Your task to perform on an android device: What's the weather going to be tomorrow? Image 0: 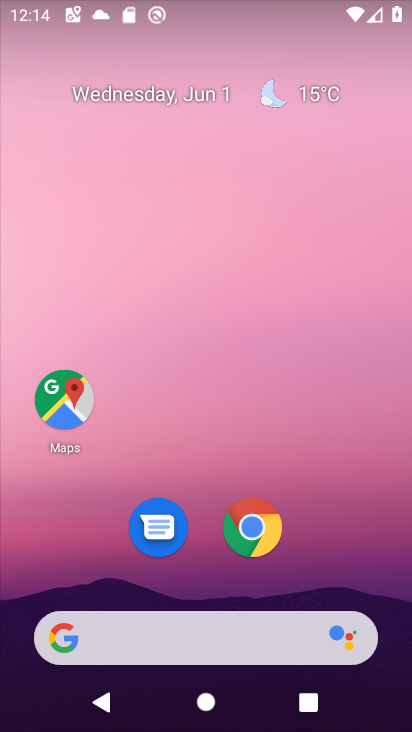
Step 0: click (312, 100)
Your task to perform on an android device: What's the weather going to be tomorrow? Image 1: 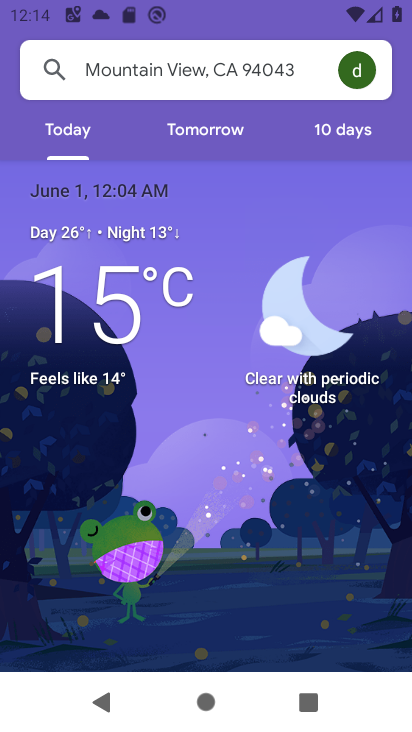
Step 1: click (188, 128)
Your task to perform on an android device: What's the weather going to be tomorrow? Image 2: 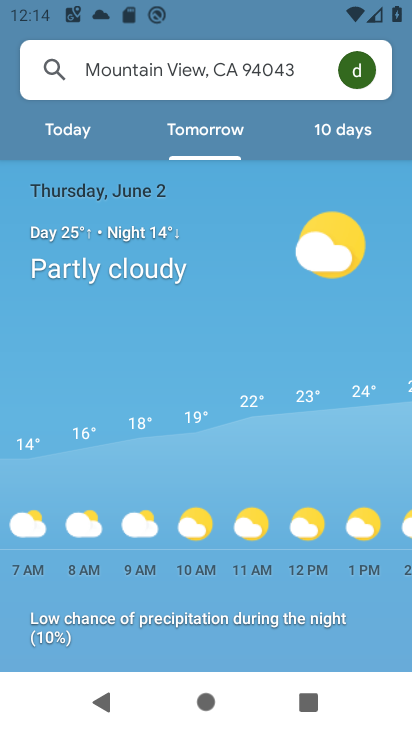
Step 2: task complete